Your task to perform on an android device: What's the weather going to be tomorrow? Image 0: 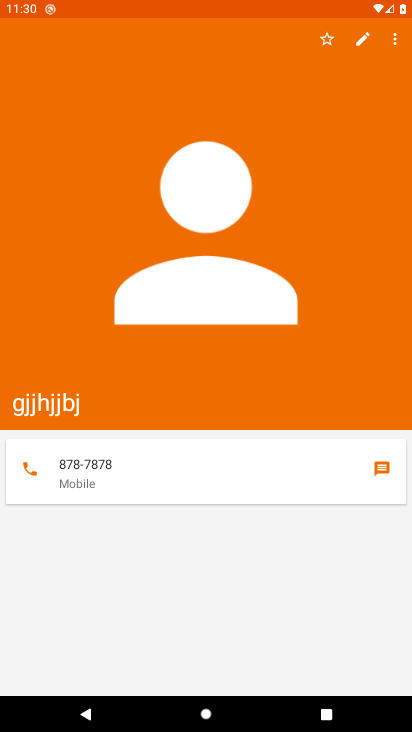
Step 0: press home button
Your task to perform on an android device: What's the weather going to be tomorrow? Image 1: 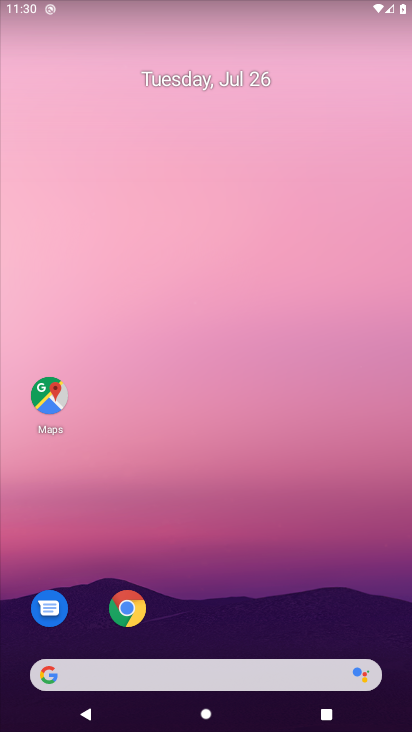
Step 1: click (40, 675)
Your task to perform on an android device: What's the weather going to be tomorrow? Image 2: 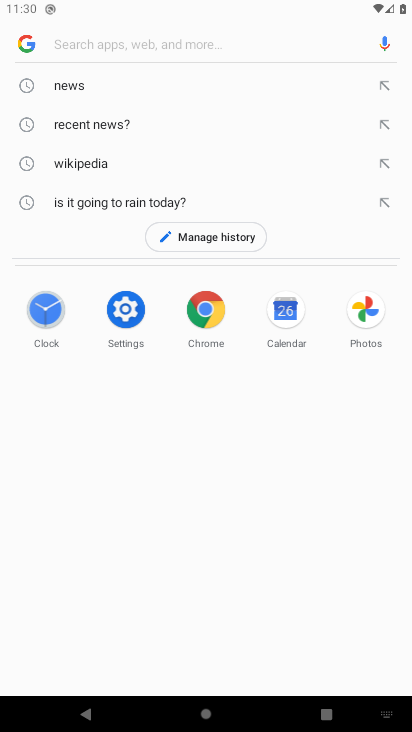
Step 2: type "What's the weather going to be tomorrow?"
Your task to perform on an android device: What's the weather going to be tomorrow? Image 3: 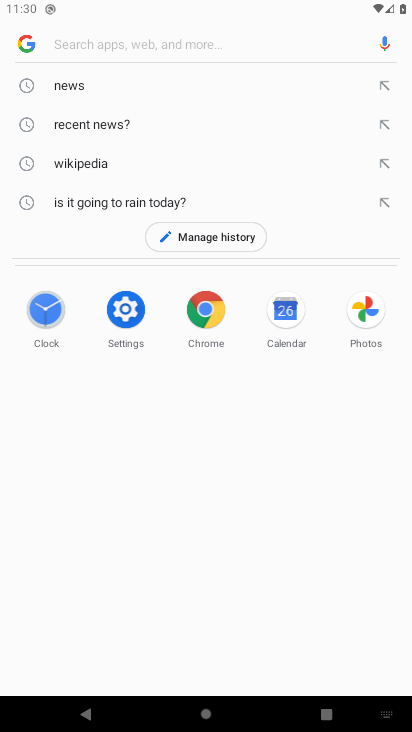
Step 3: click (198, 47)
Your task to perform on an android device: What's the weather going to be tomorrow? Image 4: 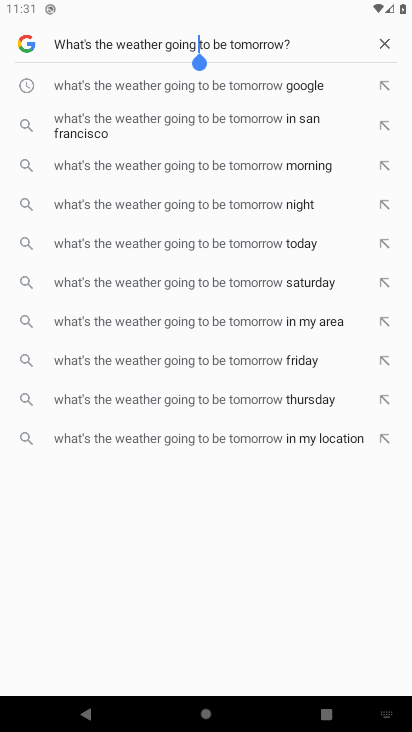
Step 4: press enter
Your task to perform on an android device: What's the weather going to be tomorrow? Image 5: 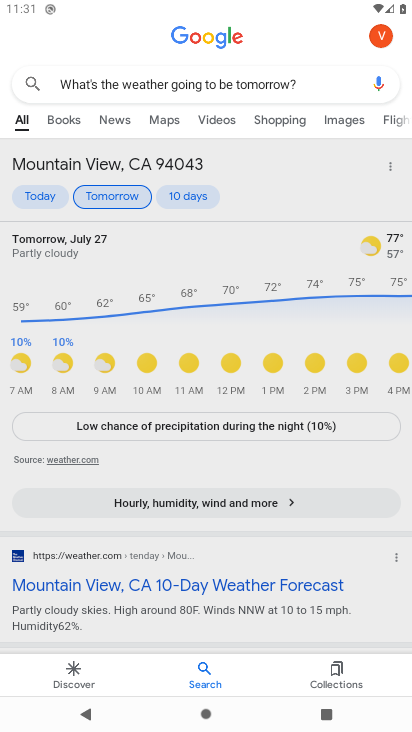
Step 5: task complete